Your task to perform on an android device: What's the weather today? Image 0: 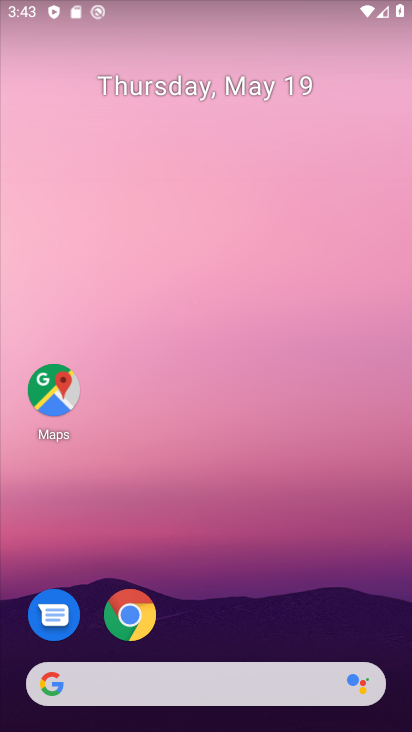
Step 0: click (110, 684)
Your task to perform on an android device: What's the weather today? Image 1: 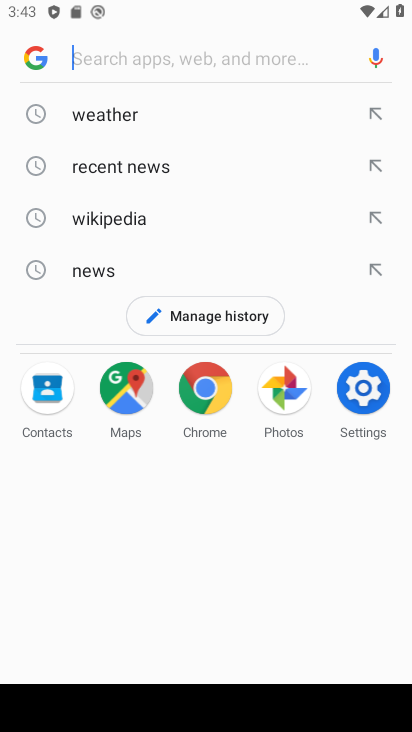
Step 1: click (99, 115)
Your task to perform on an android device: What's the weather today? Image 2: 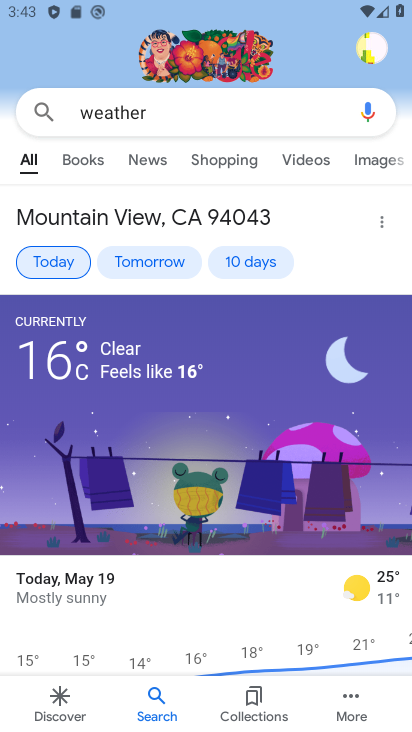
Step 2: task complete